Your task to perform on an android device: Search for Italian restaurants on Maps Image 0: 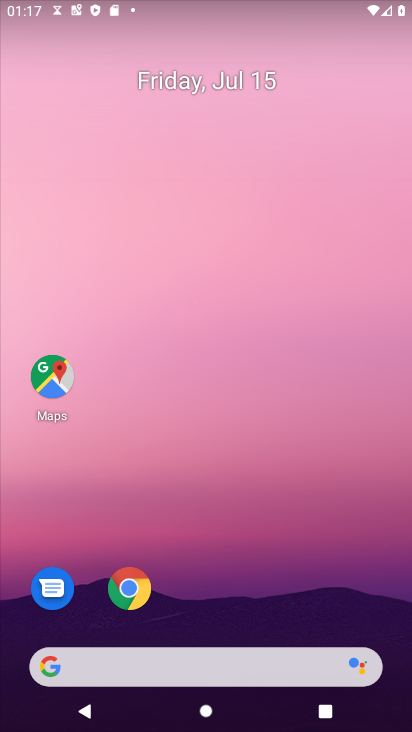
Step 0: click (65, 376)
Your task to perform on an android device: Search for Italian restaurants on Maps Image 1: 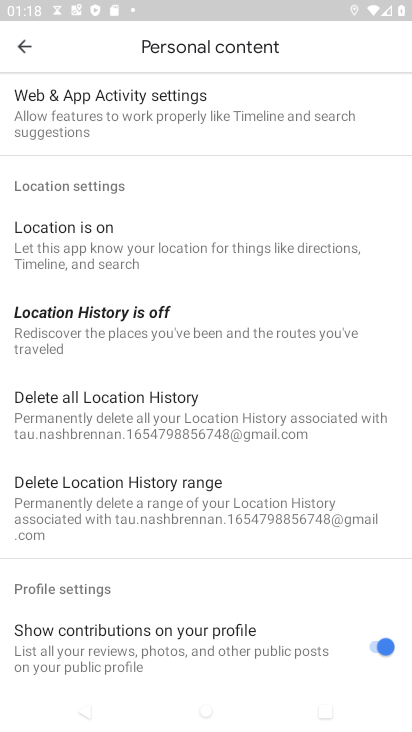
Step 1: click (25, 40)
Your task to perform on an android device: Search for Italian restaurants on Maps Image 2: 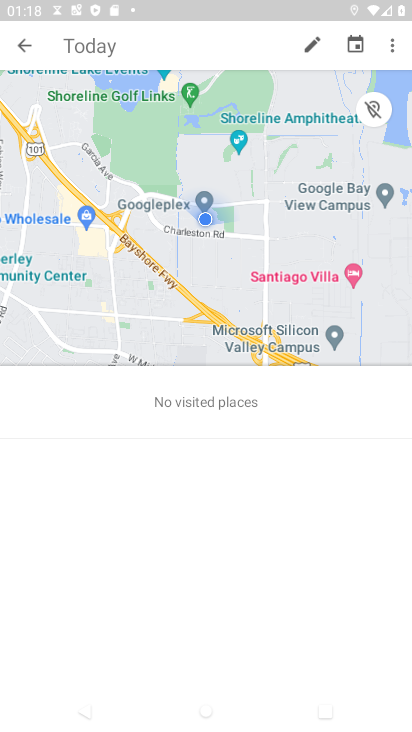
Step 2: click (24, 39)
Your task to perform on an android device: Search for Italian restaurants on Maps Image 3: 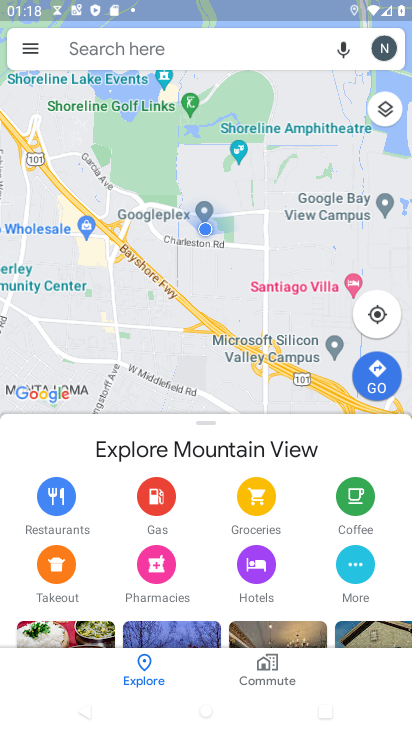
Step 3: click (119, 57)
Your task to perform on an android device: Search for Italian restaurants on Maps Image 4: 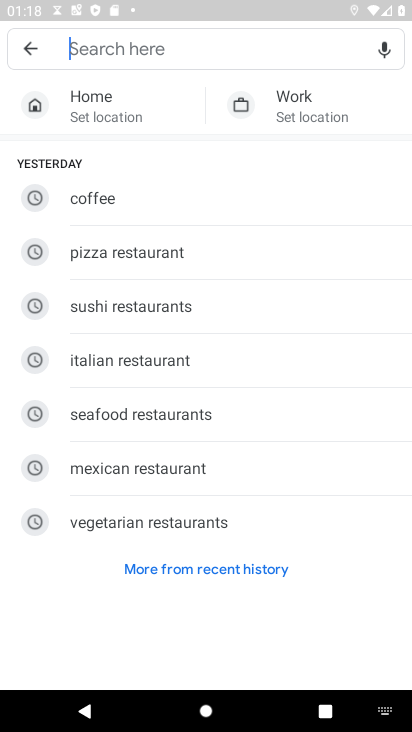
Step 4: click (107, 357)
Your task to perform on an android device: Search for Italian restaurants on Maps Image 5: 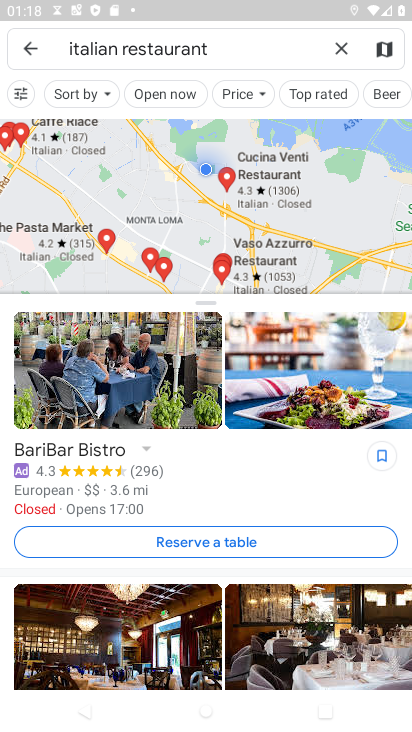
Step 5: task complete